Your task to perform on an android device: toggle improve location accuracy Image 0: 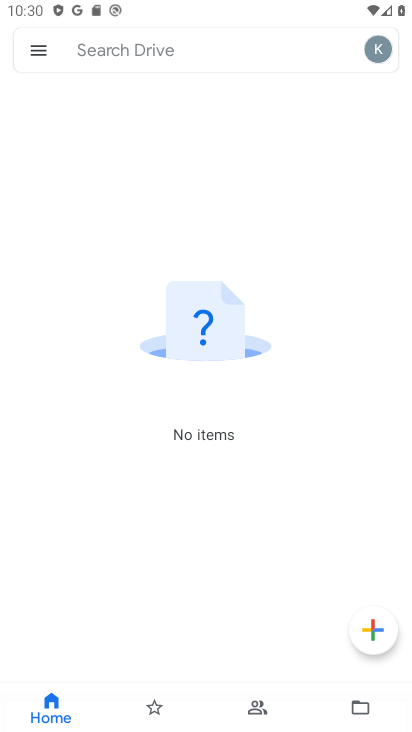
Step 0: press home button
Your task to perform on an android device: toggle improve location accuracy Image 1: 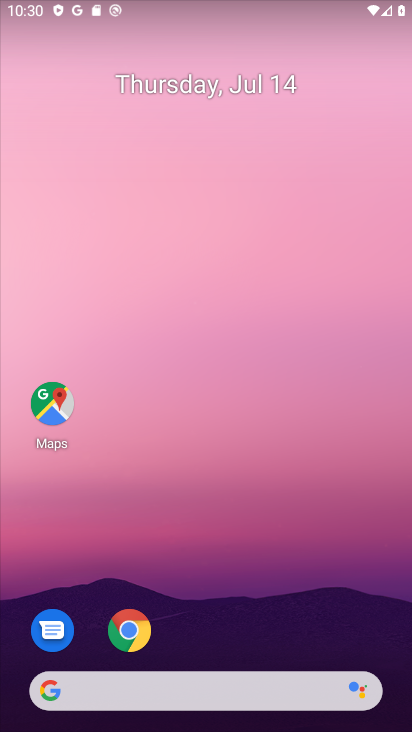
Step 1: drag from (213, 635) to (352, 41)
Your task to perform on an android device: toggle improve location accuracy Image 2: 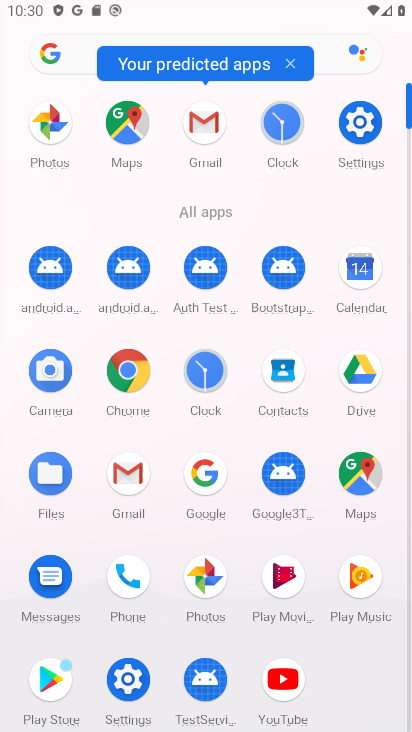
Step 2: click (137, 684)
Your task to perform on an android device: toggle improve location accuracy Image 3: 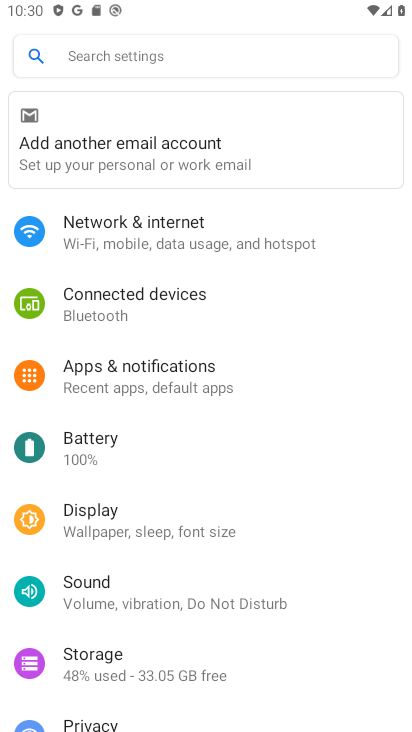
Step 3: drag from (167, 608) to (267, 241)
Your task to perform on an android device: toggle improve location accuracy Image 4: 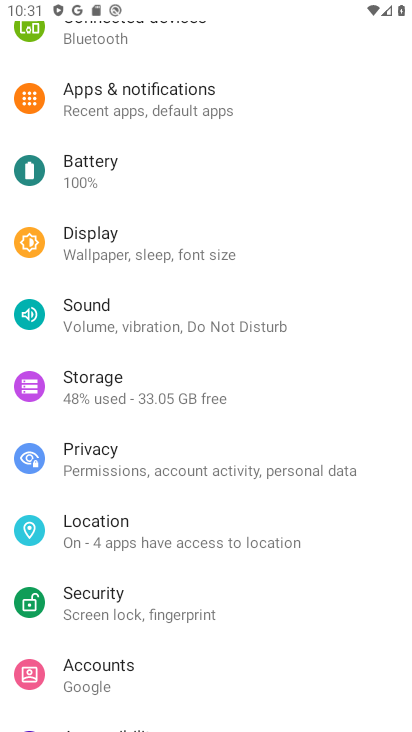
Step 4: click (152, 530)
Your task to perform on an android device: toggle improve location accuracy Image 5: 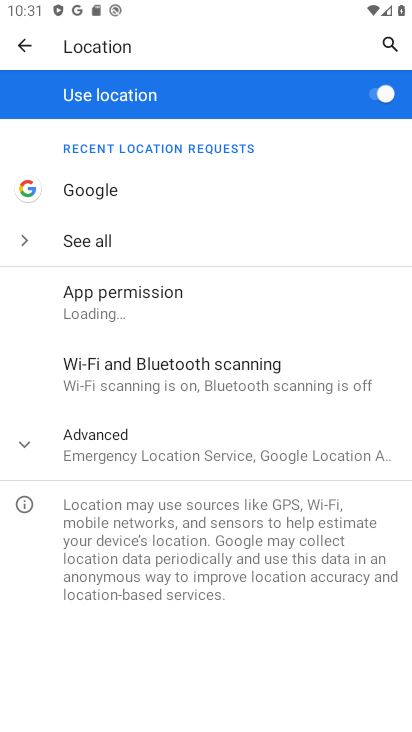
Step 5: click (171, 442)
Your task to perform on an android device: toggle improve location accuracy Image 6: 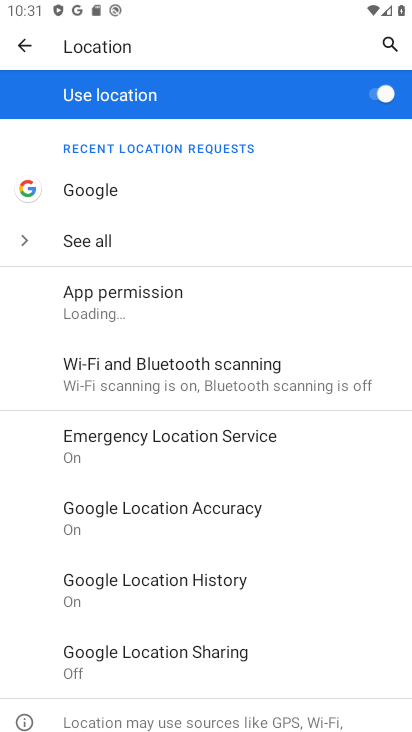
Step 6: click (207, 523)
Your task to perform on an android device: toggle improve location accuracy Image 7: 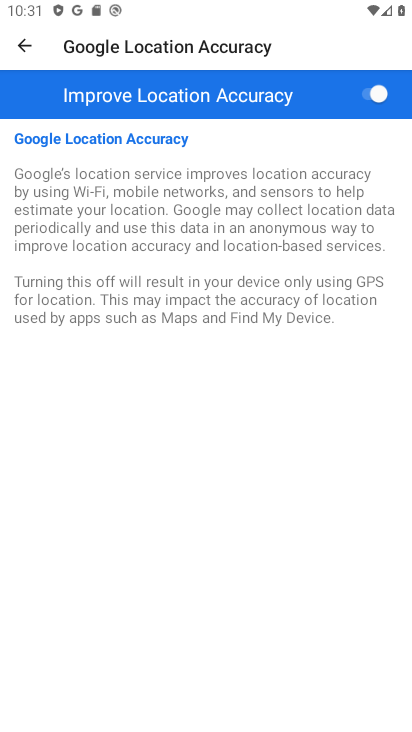
Step 7: click (372, 86)
Your task to perform on an android device: toggle improve location accuracy Image 8: 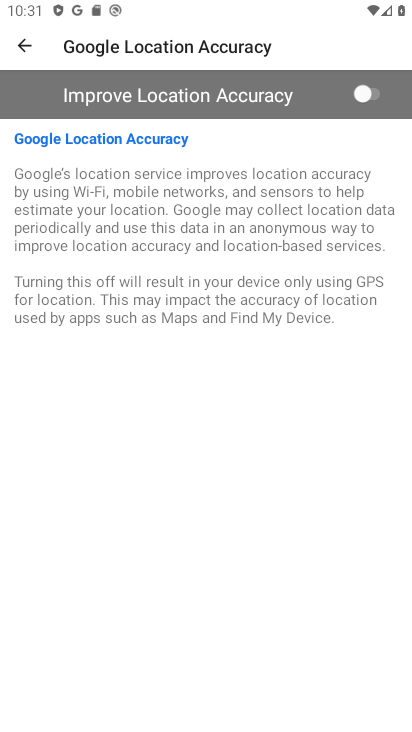
Step 8: task complete